Your task to perform on an android device: turn off javascript in the chrome app Image 0: 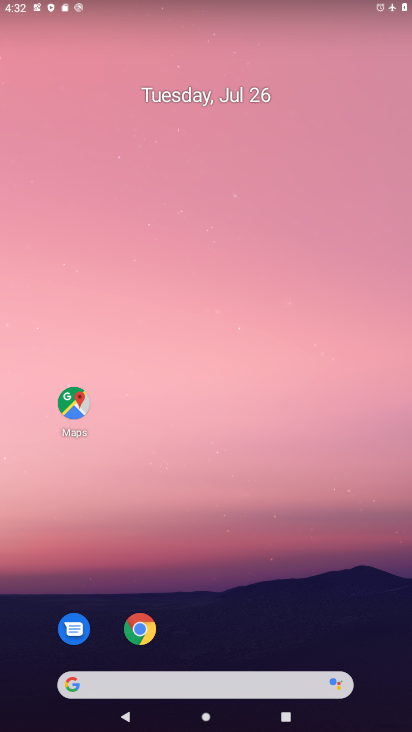
Step 0: click (137, 628)
Your task to perform on an android device: turn off javascript in the chrome app Image 1: 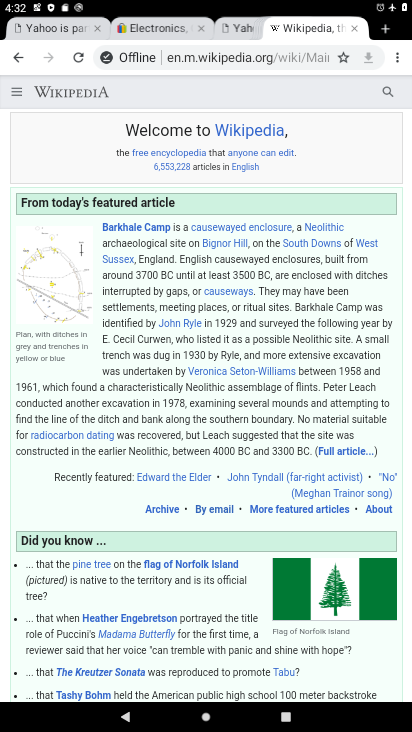
Step 1: click (397, 60)
Your task to perform on an android device: turn off javascript in the chrome app Image 2: 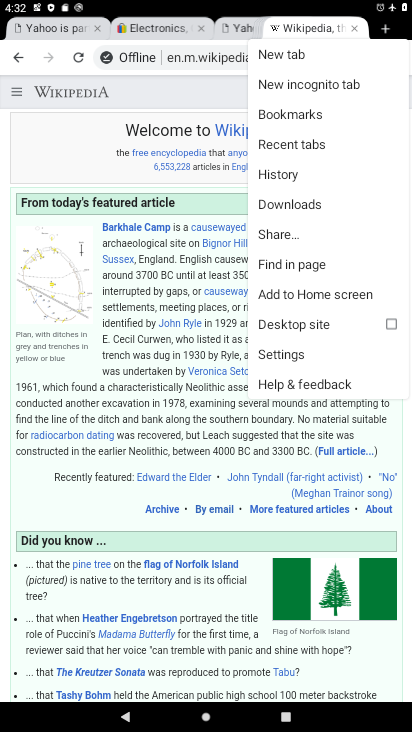
Step 2: click (286, 351)
Your task to perform on an android device: turn off javascript in the chrome app Image 3: 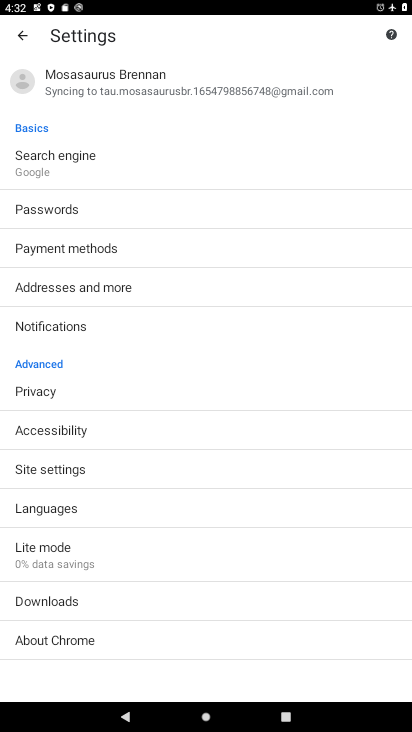
Step 3: click (60, 463)
Your task to perform on an android device: turn off javascript in the chrome app Image 4: 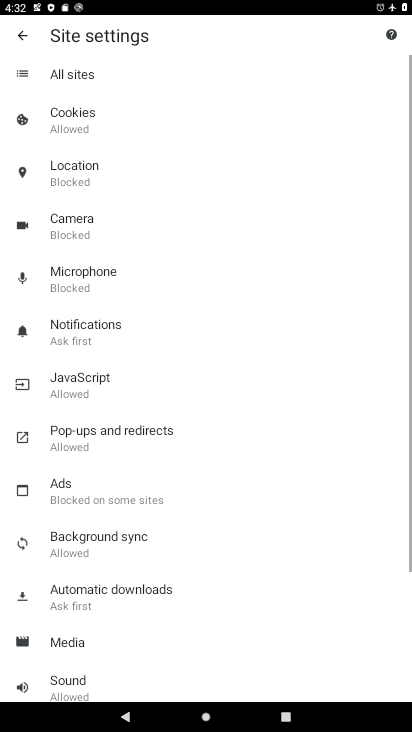
Step 4: click (70, 383)
Your task to perform on an android device: turn off javascript in the chrome app Image 5: 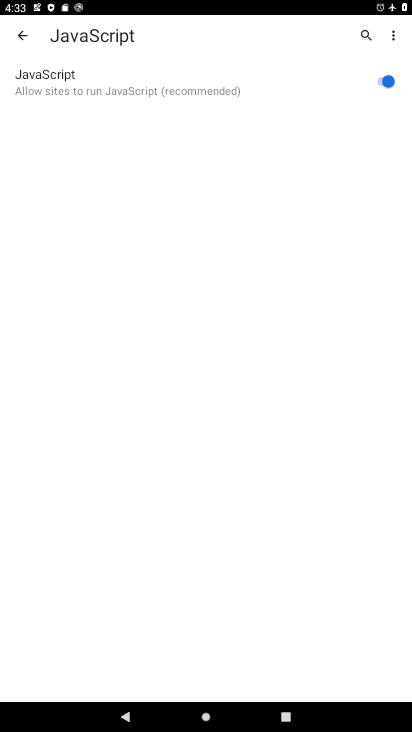
Step 5: click (381, 82)
Your task to perform on an android device: turn off javascript in the chrome app Image 6: 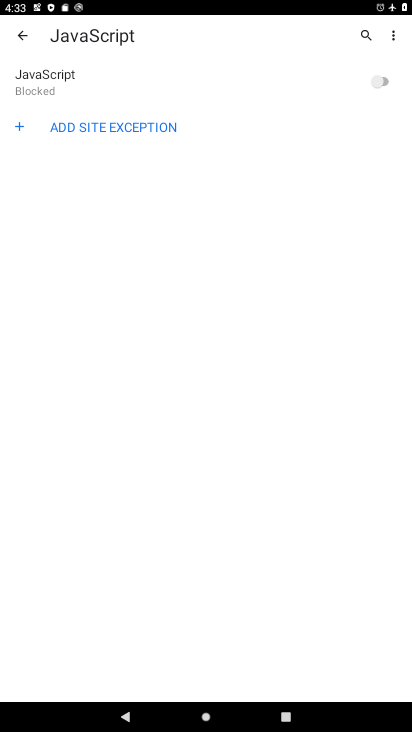
Step 6: task complete